Your task to perform on an android device: Open the stopwatch Image 0: 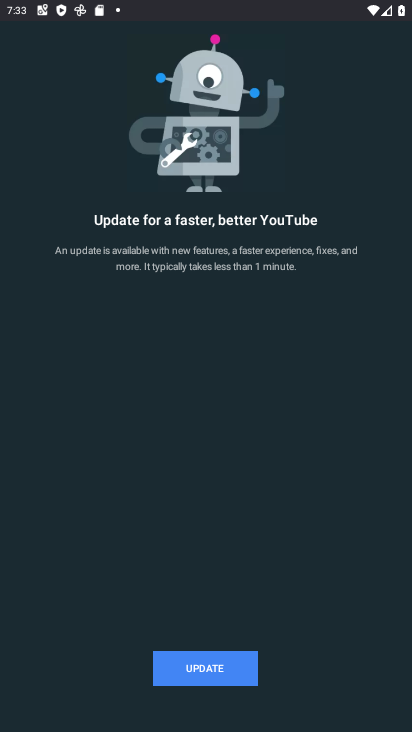
Step 0: press home button
Your task to perform on an android device: Open the stopwatch Image 1: 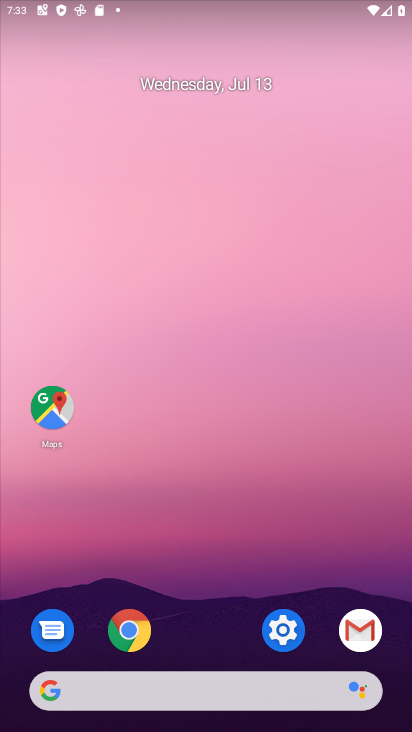
Step 1: drag from (238, 719) to (318, 248)
Your task to perform on an android device: Open the stopwatch Image 2: 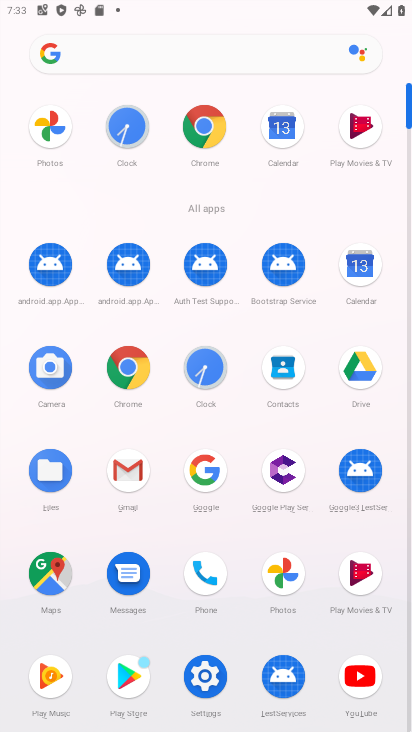
Step 2: click (203, 365)
Your task to perform on an android device: Open the stopwatch Image 3: 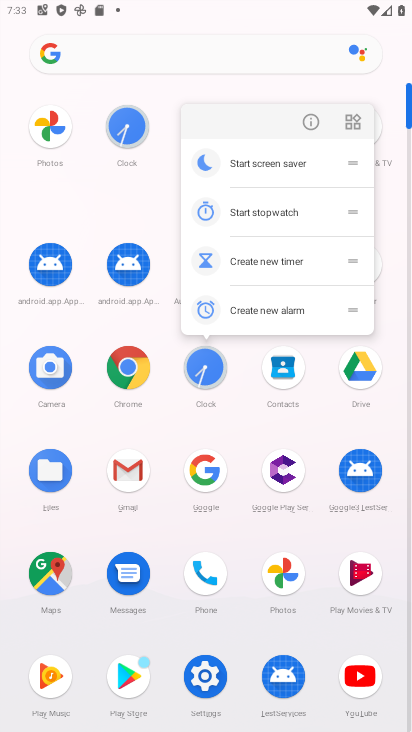
Step 3: click (203, 369)
Your task to perform on an android device: Open the stopwatch Image 4: 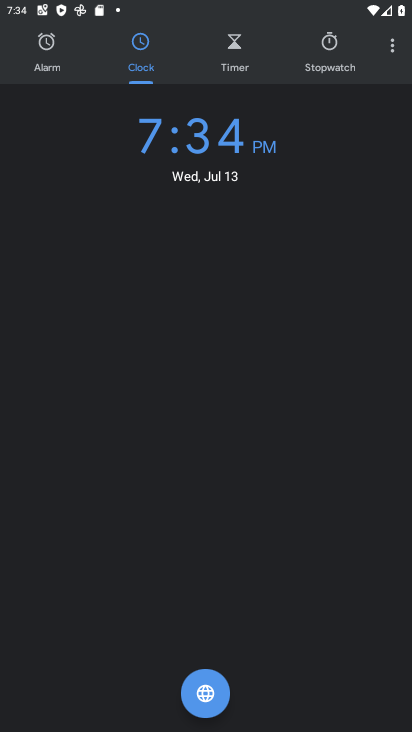
Step 4: click (325, 58)
Your task to perform on an android device: Open the stopwatch Image 5: 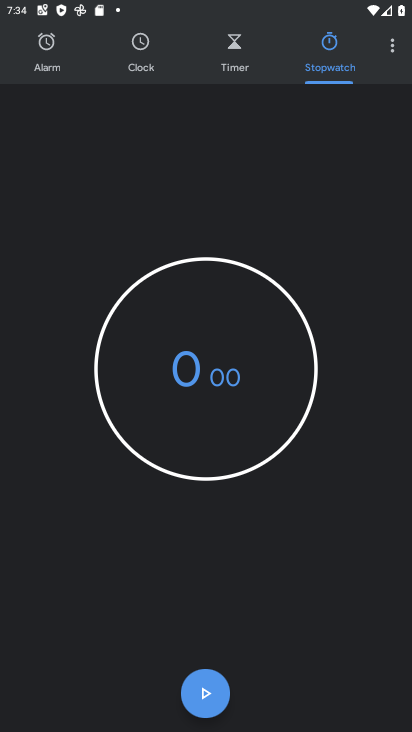
Step 5: task complete